Your task to perform on an android device: Open ESPN.com Image 0: 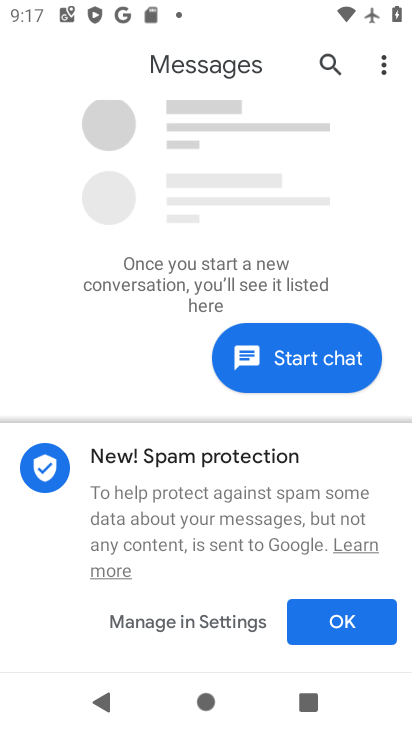
Step 0: press home button
Your task to perform on an android device: Open ESPN.com Image 1: 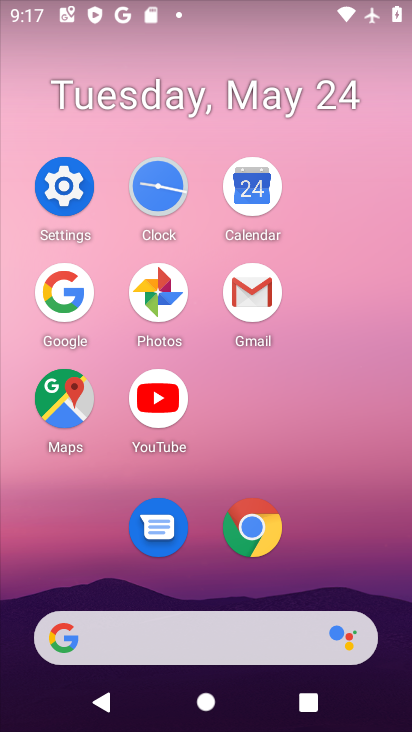
Step 1: click (265, 512)
Your task to perform on an android device: Open ESPN.com Image 2: 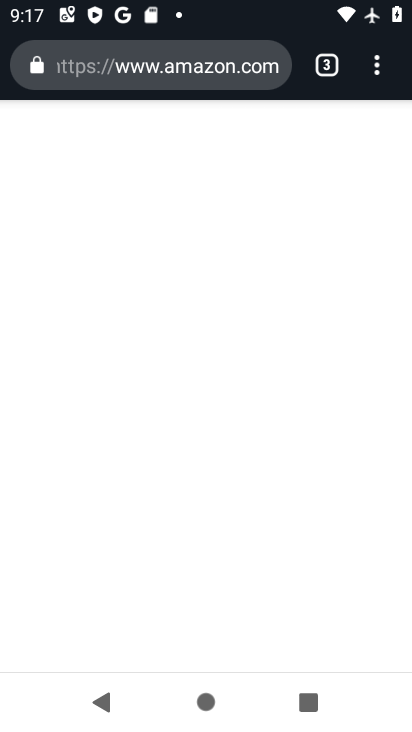
Step 2: click (328, 75)
Your task to perform on an android device: Open ESPN.com Image 3: 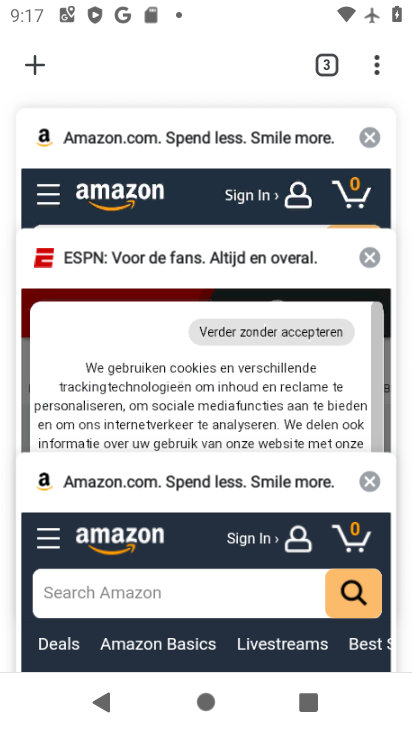
Step 3: click (153, 280)
Your task to perform on an android device: Open ESPN.com Image 4: 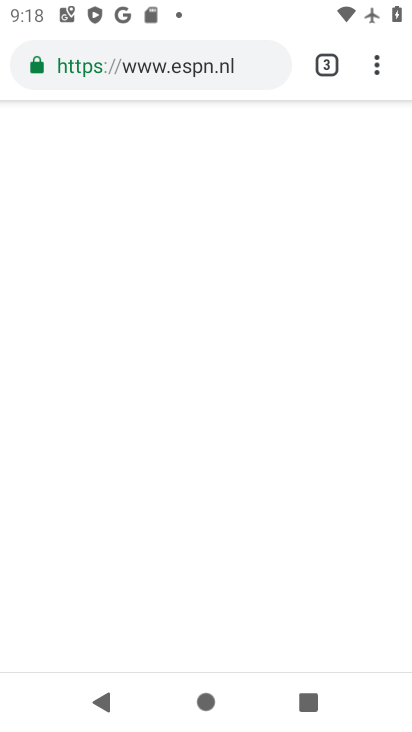
Step 4: task complete